Your task to perform on an android device: Go to ESPN.com Image 0: 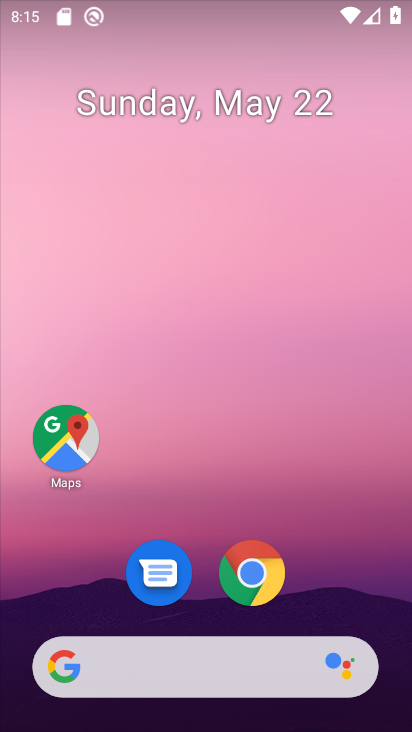
Step 0: drag from (193, 581) to (241, 231)
Your task to perform on an android device: Go to ESPN.com Image 1: 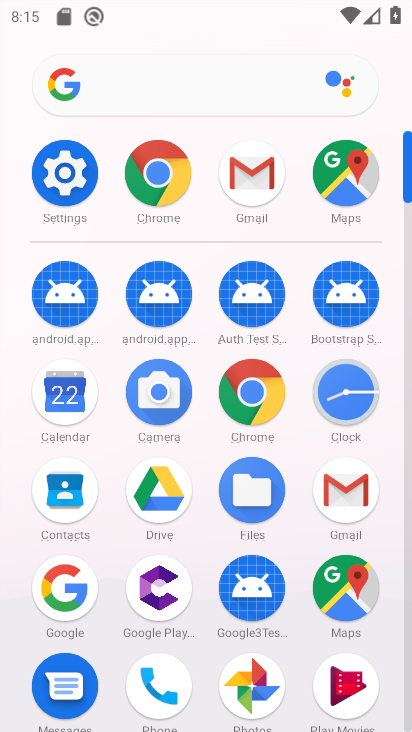
Step 1: click (109, 84)
Your task to perform on an android device: Go to ESPN.com Image 2: 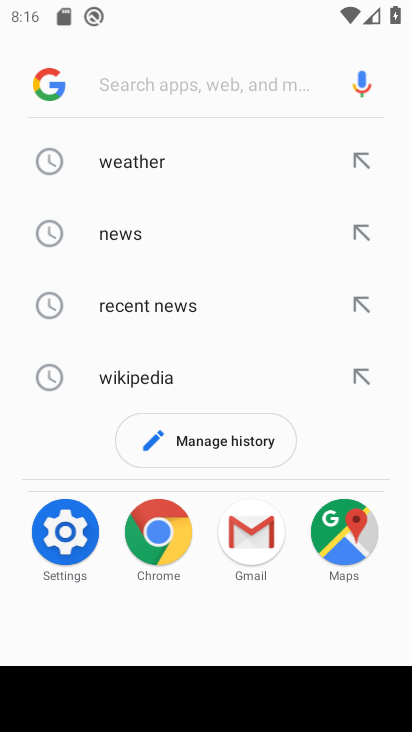
Step 2: type "espn"
Your task to perform on an android device: Go to ESPN.com Image 3: 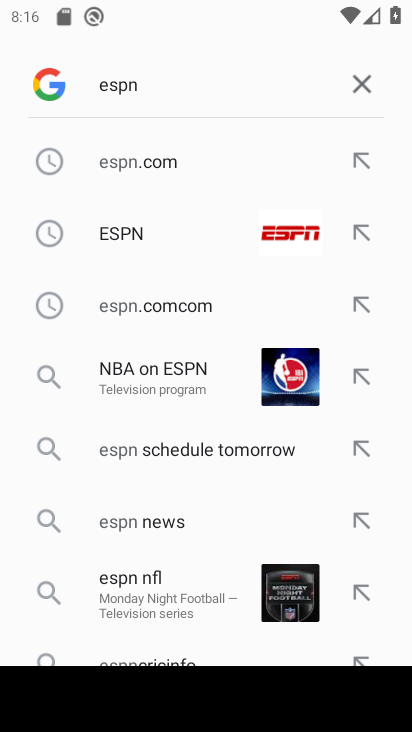
Step 3: click (190, 221)
Your task to perform on an android device: Go to ESPN.com Image 4: 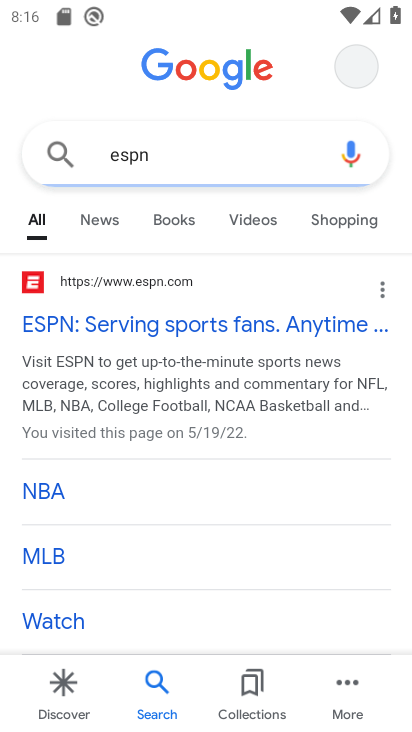
Step 4: task complete